Your task to perform on an android device: change the clock display to show seconds Image 0: 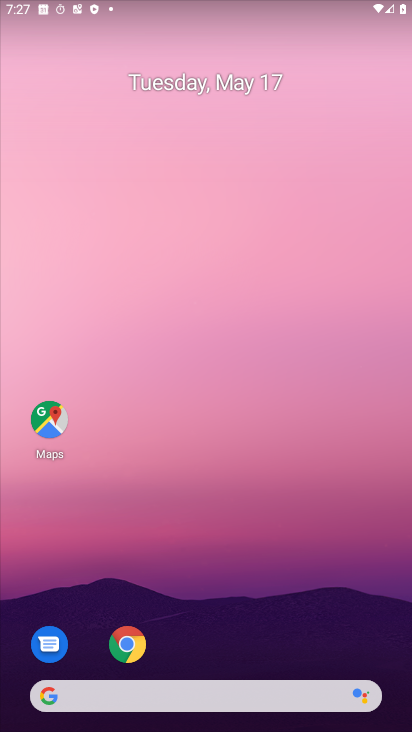
Step 0: drag from (363, 631) to (316, 258)
Your task to perform on an android device: change the clock display to show seconds Image 1: 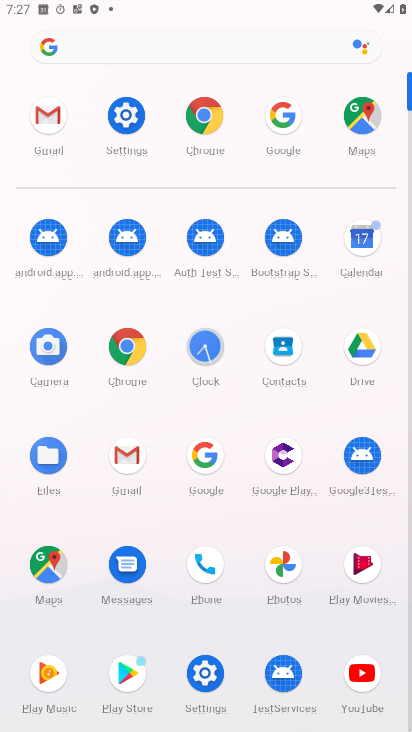
Step 1: click (199, 355)
Your task to perform on an android device: change the clock display to show seconds Image 2: 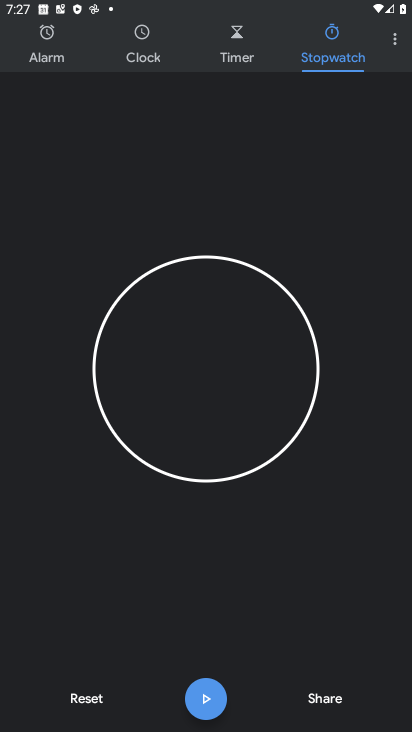
Step 2: click (394, 33)
Your task to perform on an android device: change the clock display to show seconds Image 3: 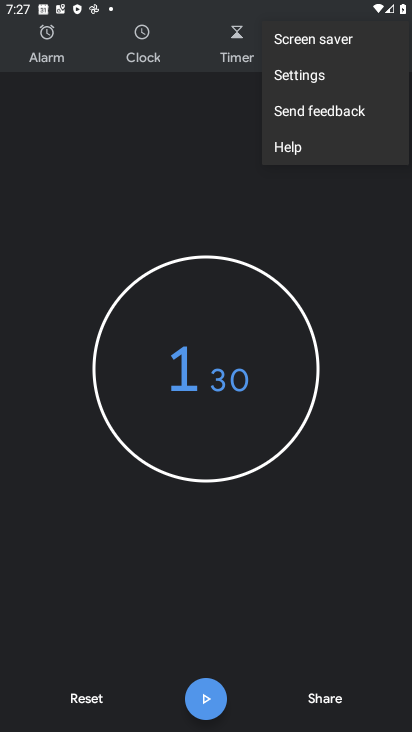
Step 3: click (301, 73)
Your task to perform on an android device: change the clock display to show seconds Image 4: 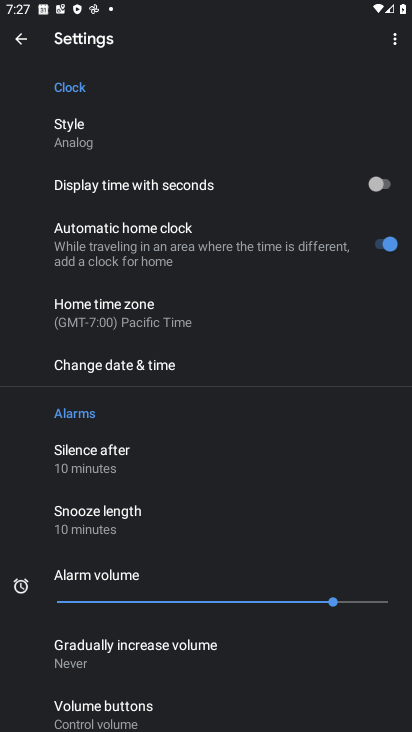
Step 4: click (270, 192)
Your task to perform on an android device: change the clock display to show seconds Image 5: 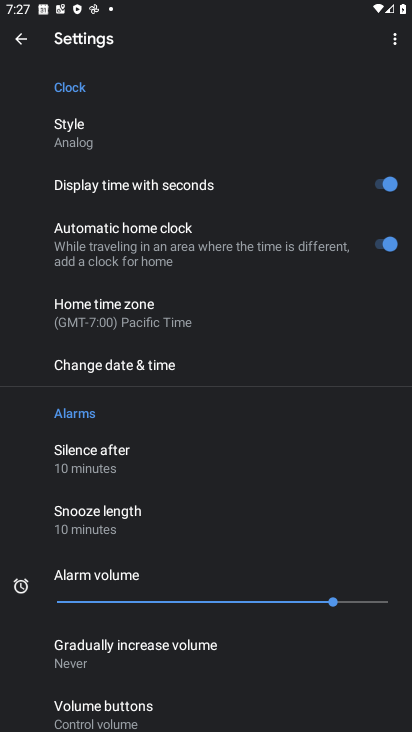
Step 5: task complete